Your task to perform on an android device: Turn off the flashlight Image 0: 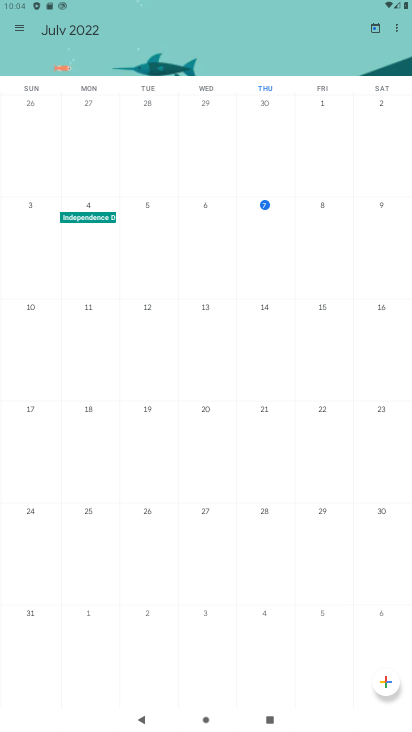
Step 0: press home button
Your task to perform on an android device: Turn off the flashlight Image 1: 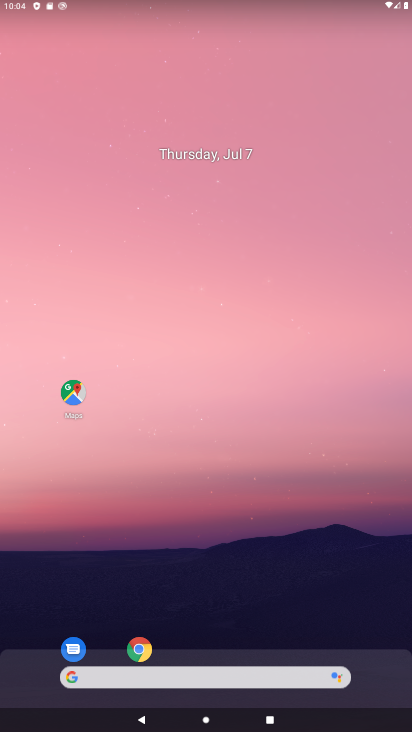
Step 1: drag from (360, 3) to (358, 384)
Your task to perform on an android device: Turn off the flashlight Image 2: 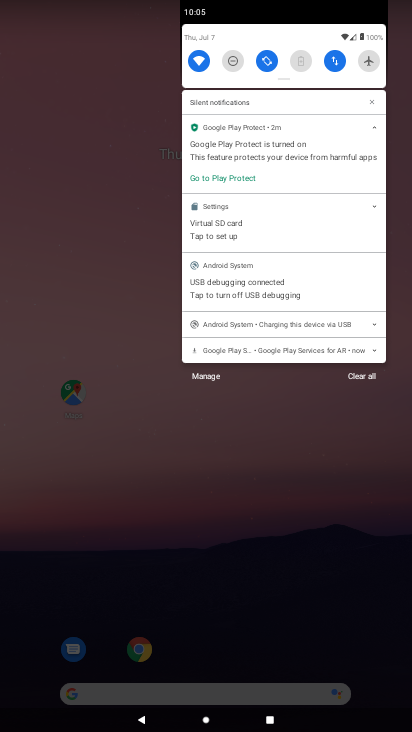
Step 2: drag from (293, 83) to (314, 303)
Your task to perform on an android device: Turn off the flashlight Image 3: 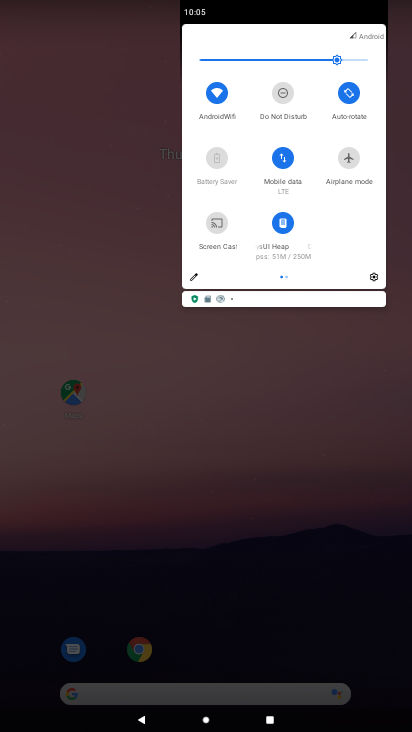
Step 3: click (194, 275)
Your task to perform on an android device: Turn off the flashlight Image 4: 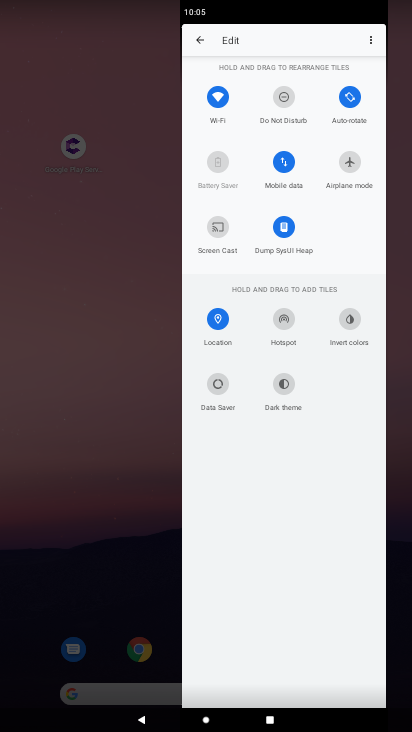
Step 4: task complete